Your task to perform on an android device: delete a single message in the gmail app Image 0: 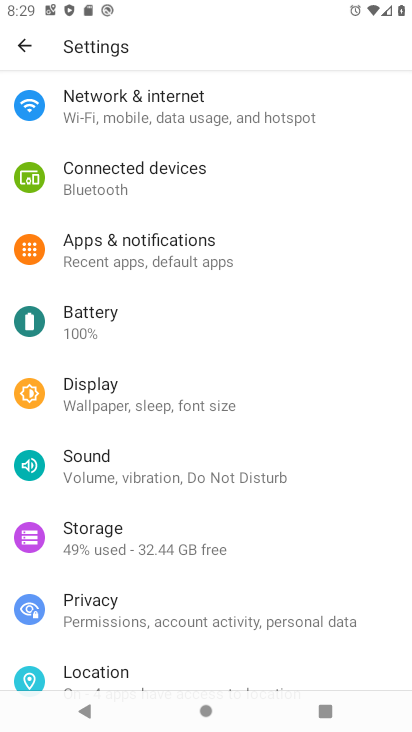
Step 0: press home button
Your task to perform on an android device: delete a single message in the gmail app Image 1: 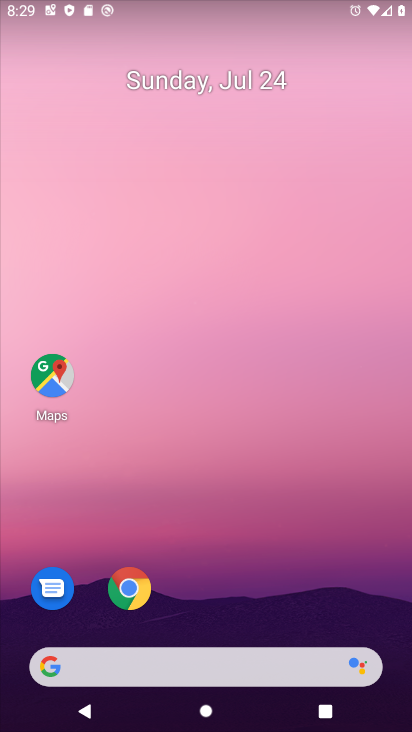
Step 1: drag from (196, 591) to (120, 45)
Your task to perform on an android device: delete a single message in the gmail app Image 2: 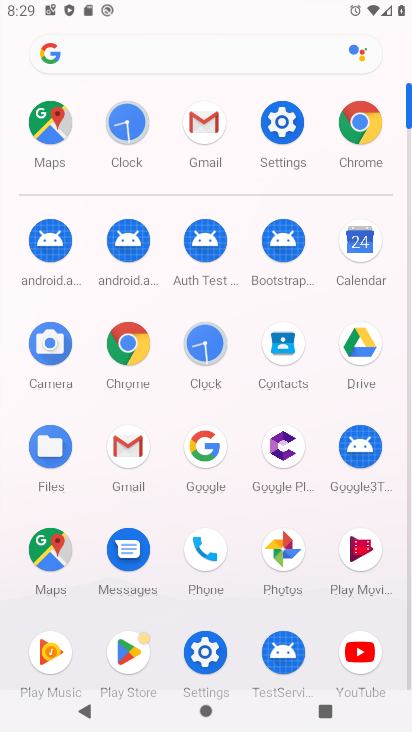
Step 2: click (206, 132)
Your task to perform on an android device: delete a single message in the gmail app Image 3: 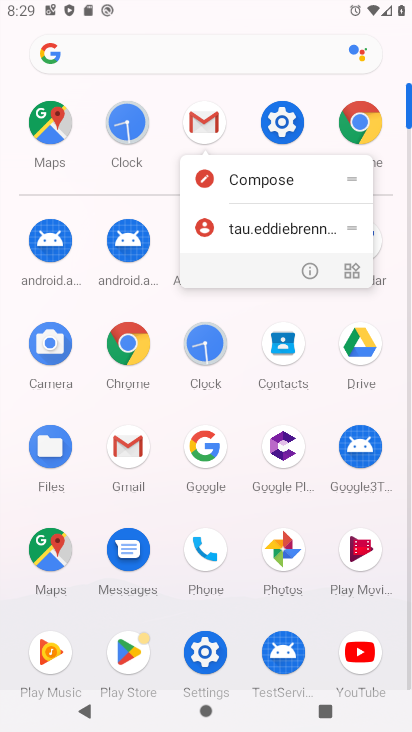
Step 3: click (203, 131)
Your task to perform on an android device: delete a single message in the gmail app Image 4: 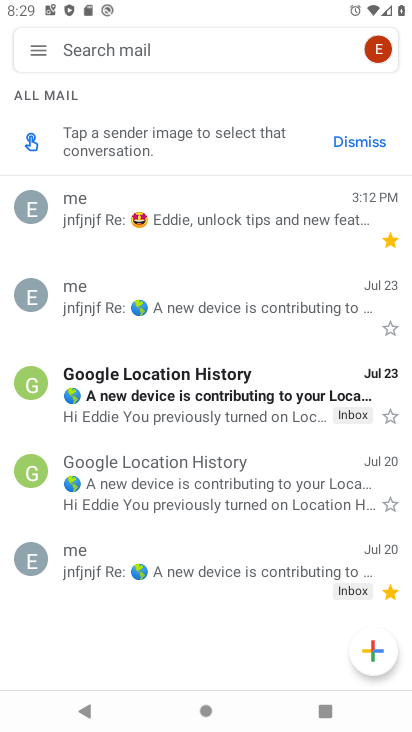
Step 4: click (128, 222)
Your task to perform on an android device: delete a single message in the gmail app Image 5: 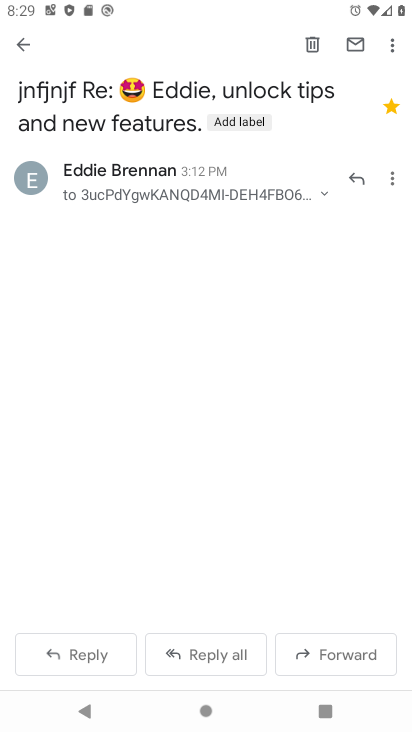
Step 5: click (300, 35)
Your task to perform on an android device: delete a single message in the gmail app Image 6: 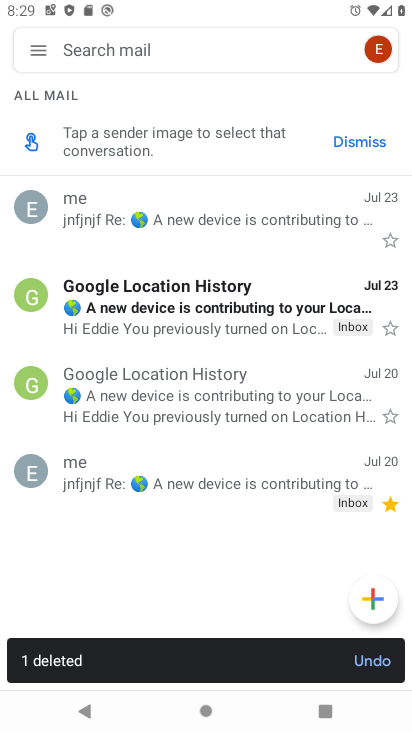
Step 6: task complete